Your task to perform on an android device: turn off smart reply in the gmail app Image 0: 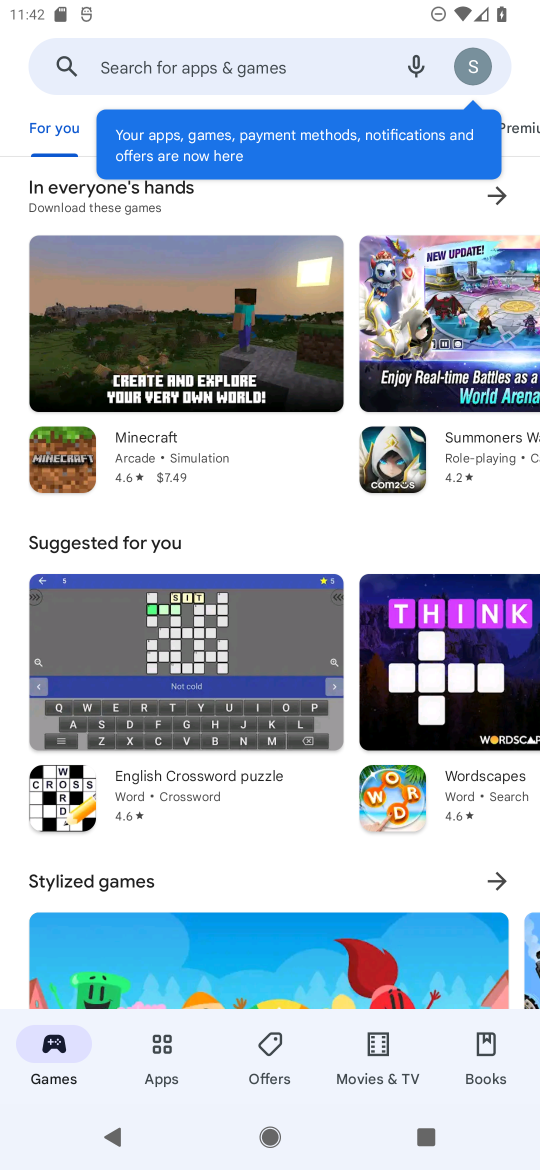
Step 0: press home button
Your task to perform on an android device: turn off smart reply in the gmail app Image 1: 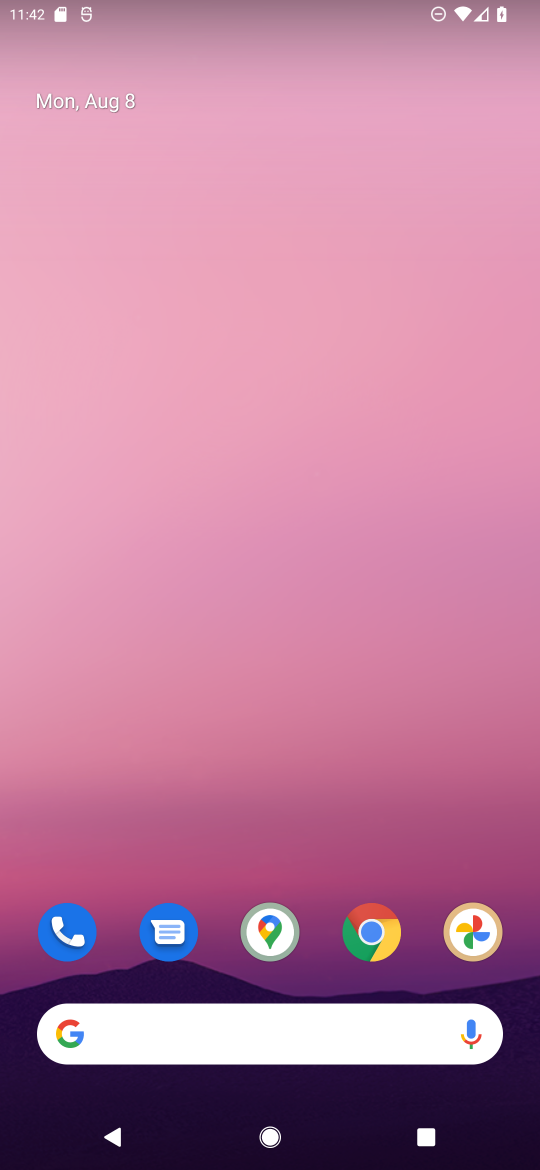
Step 1: drag from (242, 844) to (315, 3)
Your task to perform on an android device: turn off smart reply in the gmail app Image 2: 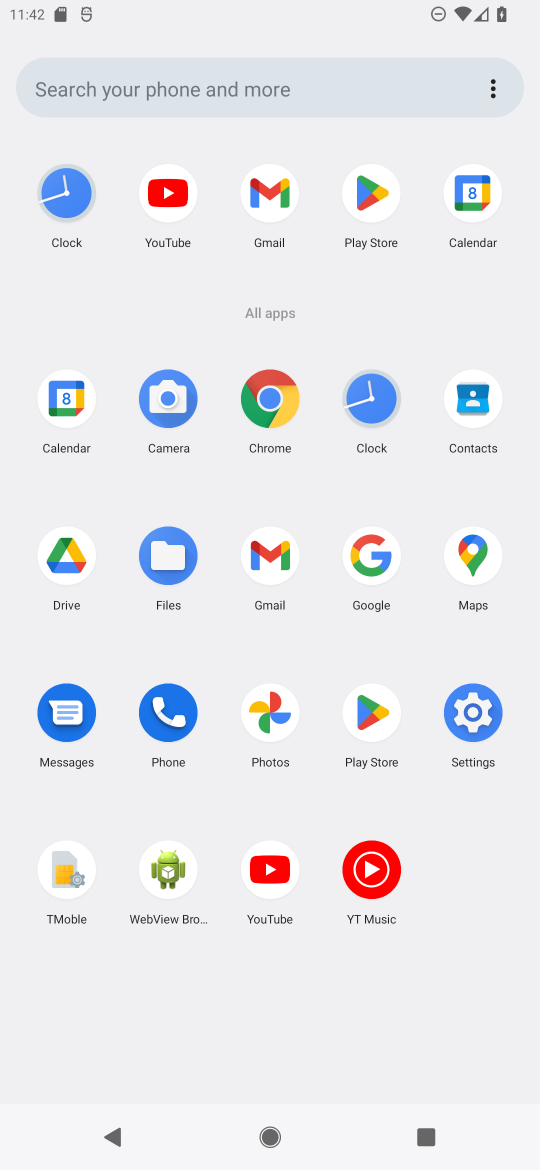
Step 2: click (269, 540)
Your task to perform on an android device: turn off smart reply in the gmail app Image 3: 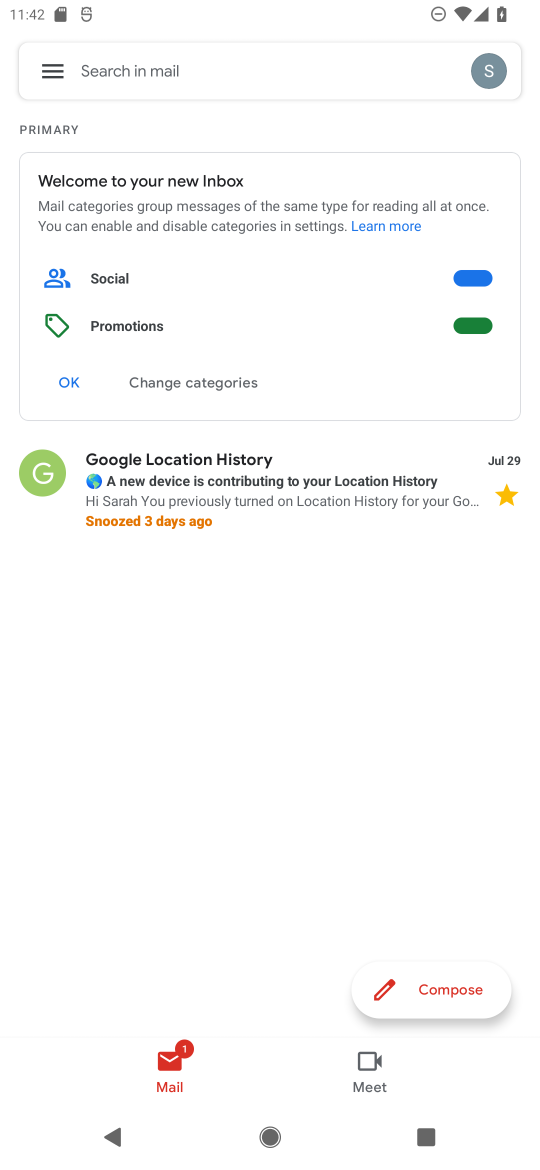
Step 3: click (60, 68)
Your task to perform on an android device: turn off smart reply in the gmail app Image 4: 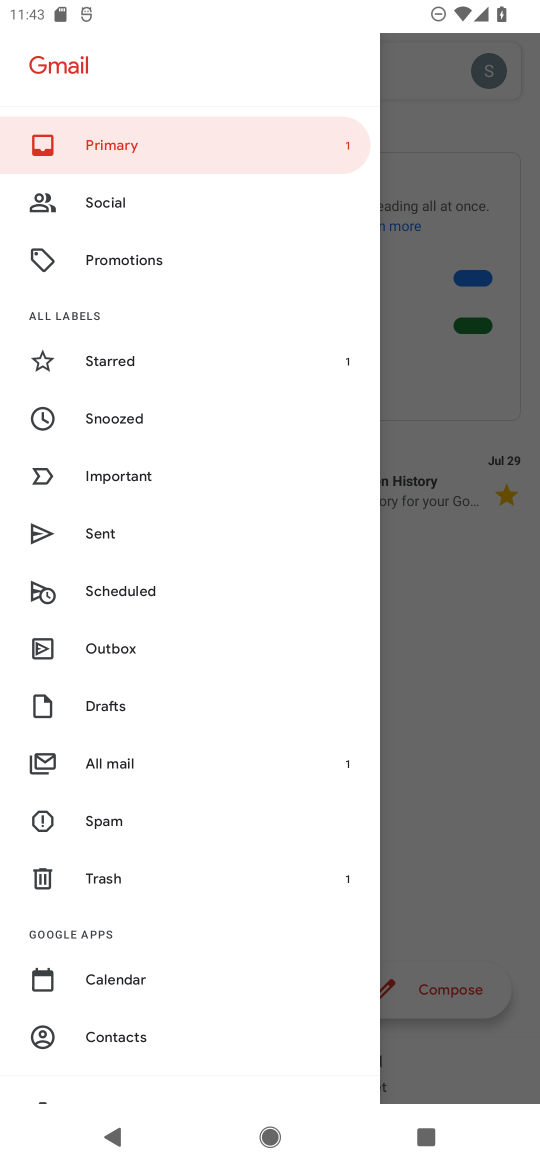
Step 4: drag from (113, 978) to (539, 114)
Your task to perform on an android device: turn off smart reply in the gmail app Image 5: 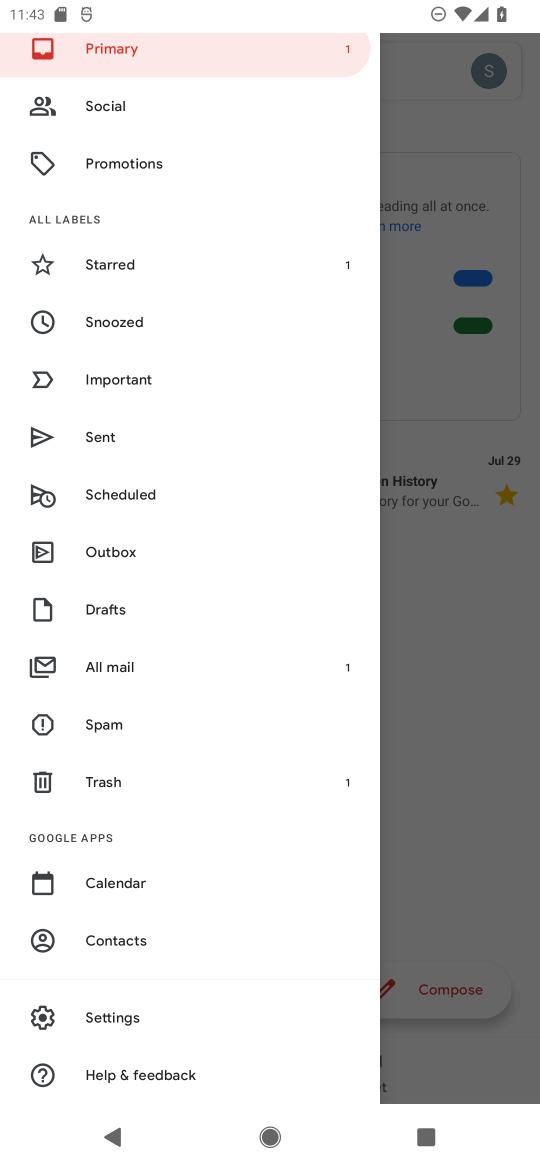
Step 5: click (137, 998)
Your task to perform on an android device: turn off smart reply in the gmail app Image 6: 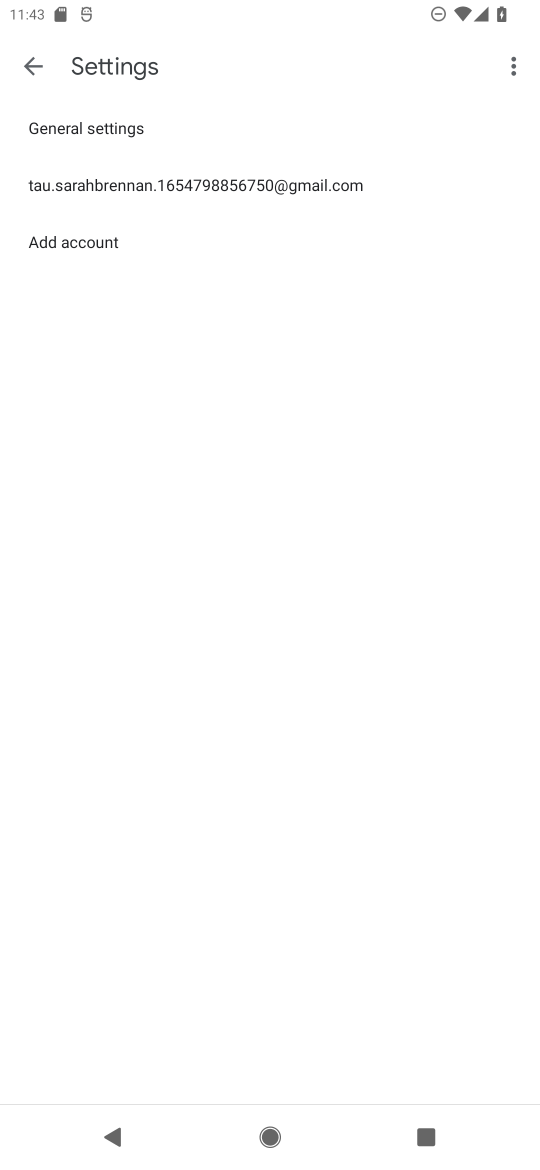
Step 6: click (394, 173)
Your task to perform on an android device: turn off smart reply in the gmail app Image 7: 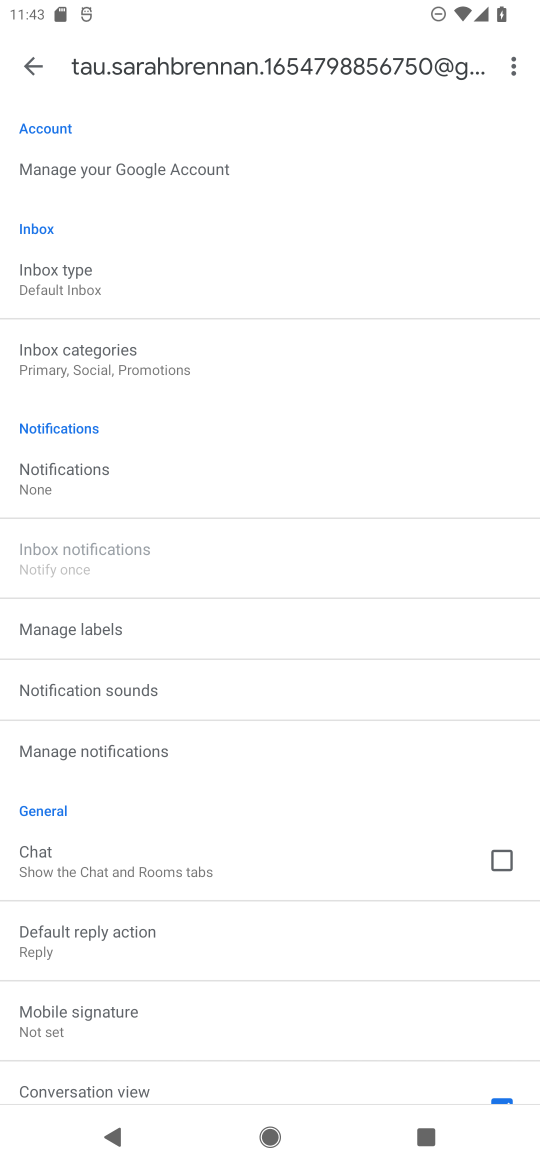
Step 7: click (362, 189)
Your task to perform on an android device: turn off smart reply in the gmail app Image 8: 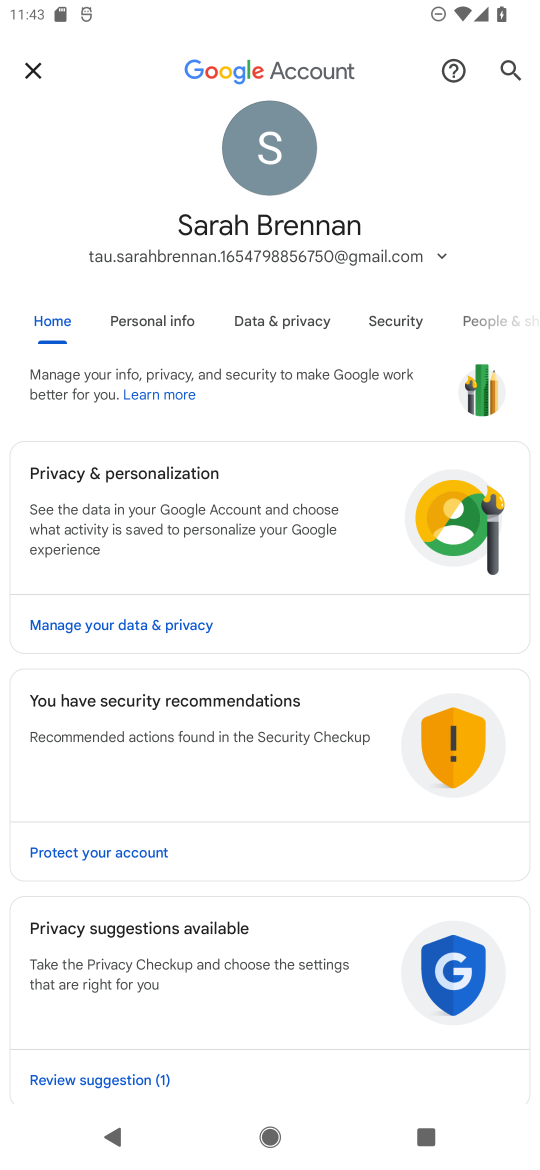
Step 8: press back button
Your task to perform on an android device: turn off smart reply in the gmail app Image 9: 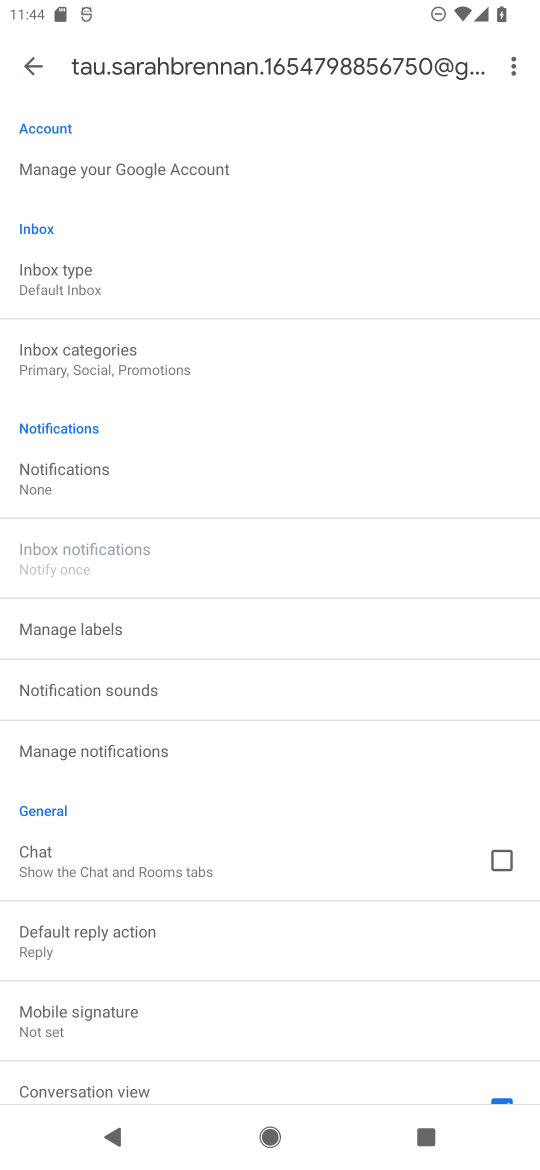
Step 9: drag from (135, 948) to (160, 202)
Your task to perform on an android device: turn off smart reply in the gmail app Image 10: 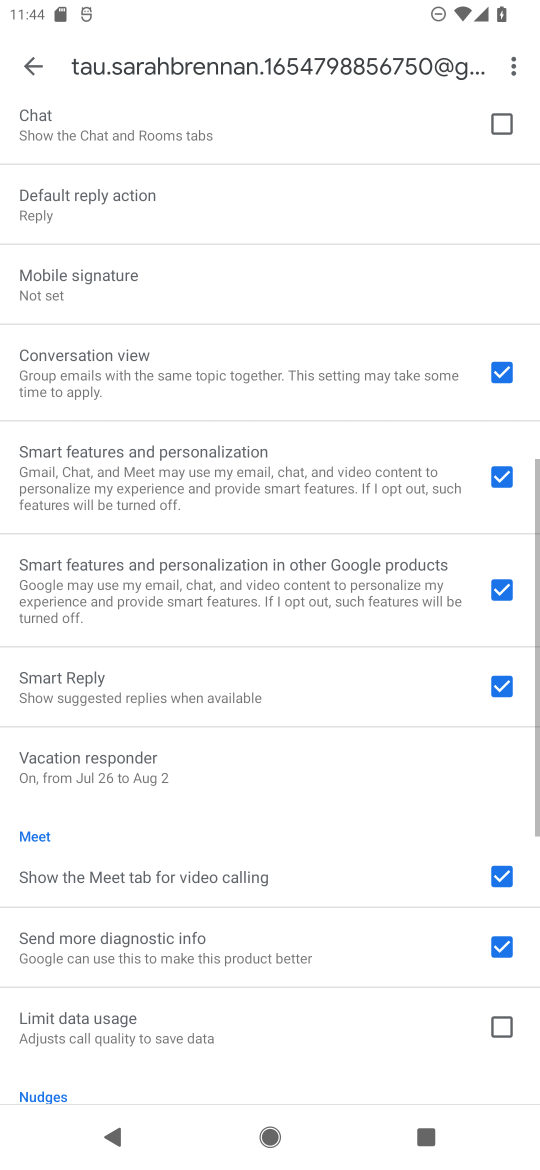
Step 10: drag from (125, 1013) to (188, 517)
Your task to perform on an android device: turn off smart reply in the gmail app Image 11: 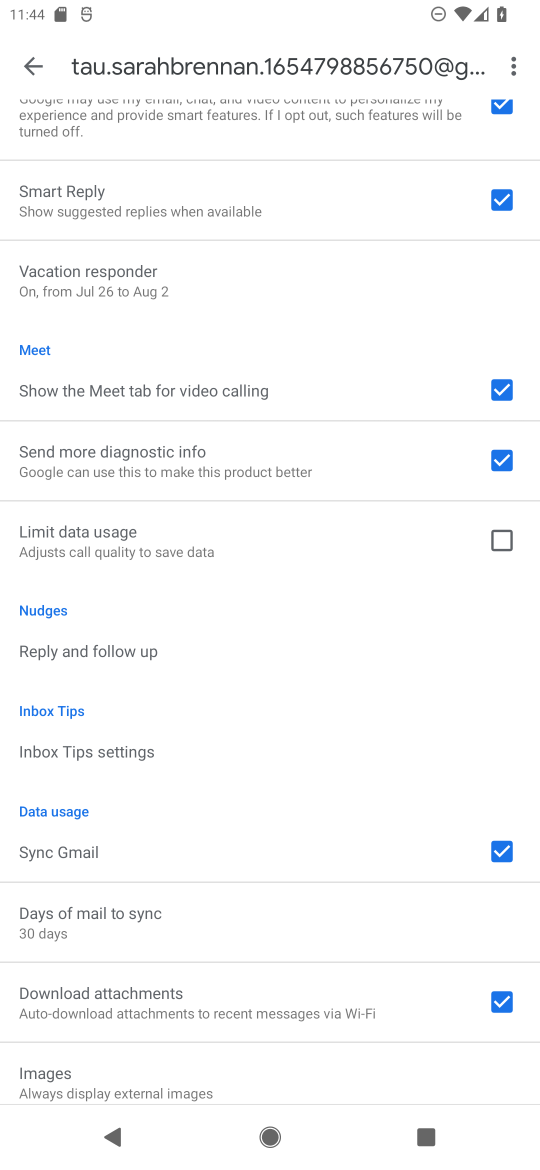
Step 11: click (495, 205)
Your task to perform on an android device: turn off smart reply in the gmail app Image 12: 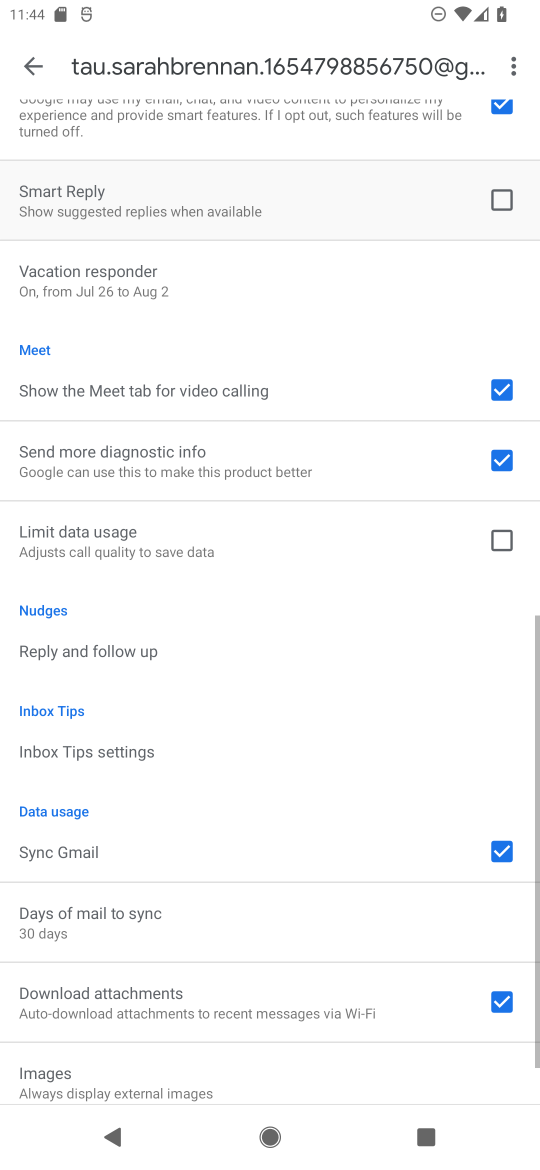
Step 12: task complete